Your task to perform on an android device: create a new album in the google photos Image 0: 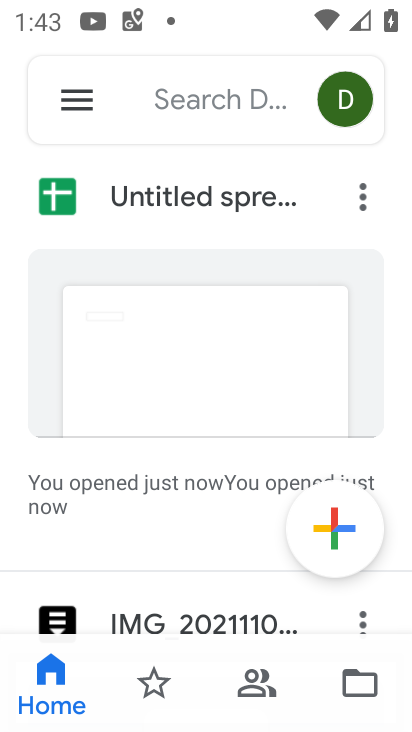
Step 0: press home button
Your task to perform on an android device: create a new album in the google photos Image 1: 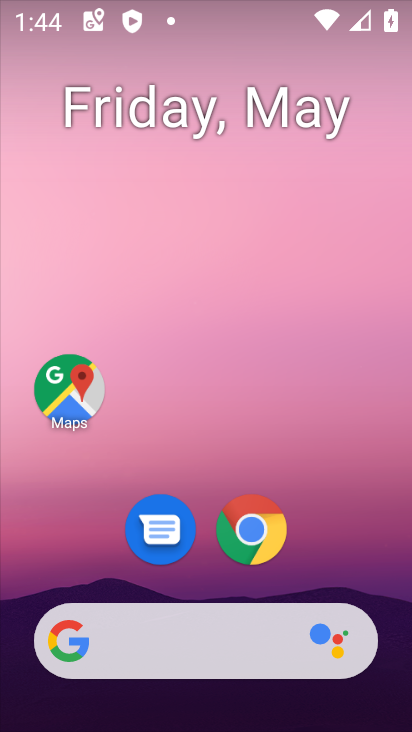
Step 1: drag from (375, 522) to (302, 124)
Your task to perform on an android device: create a new album in the google photos Image 2: 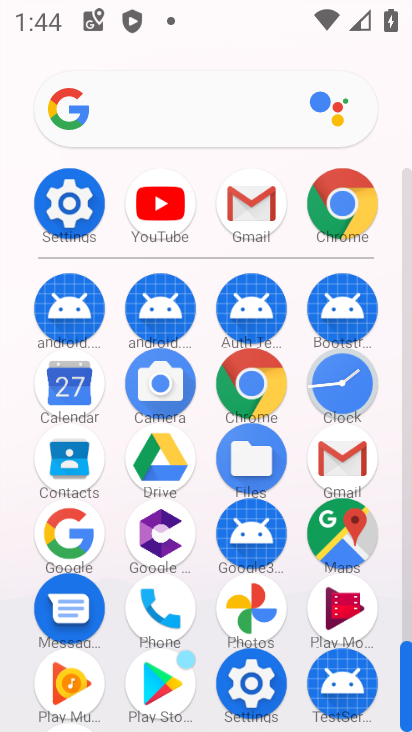
Step 2: click (256, 606)
Your task to perform on an android device: create a new album in the google photos Image 3: 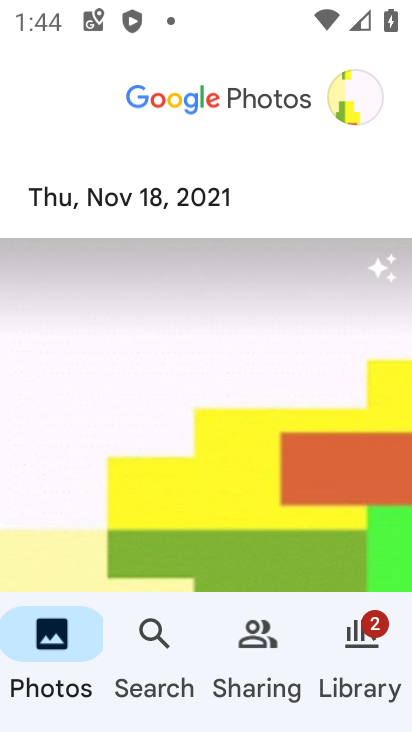
Step 3: click (382, 699)
Your task to perform on an android device: create a new album in the google photos Image 4: 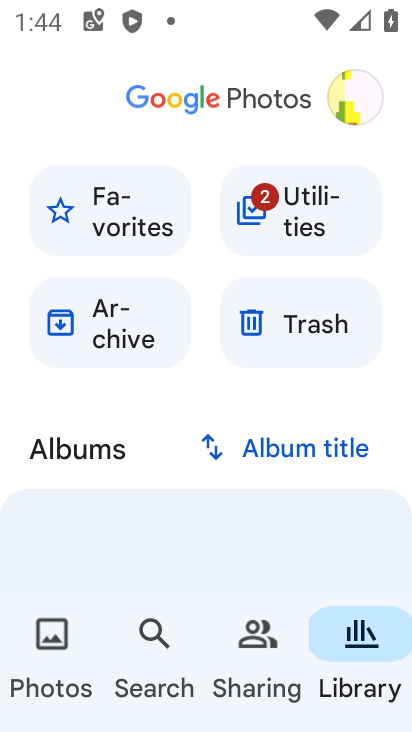
Step 4: click (115, 450)
Your task to perform on an android device: create a new album in the google photos Image 5: 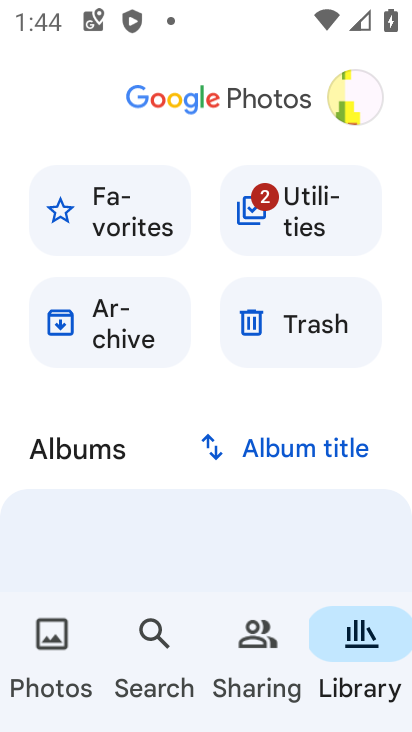
Step 5: drag from (170, 572) to (165, 204)
Your task to perform on an android device: create a new album in the google photos Image 6: 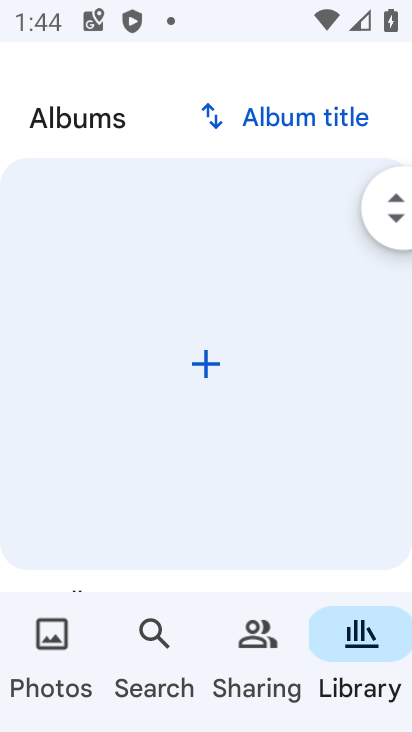
Step 6: click (185, 348)
Your task to perform on an android device: create a new album in the google photos Image 7: 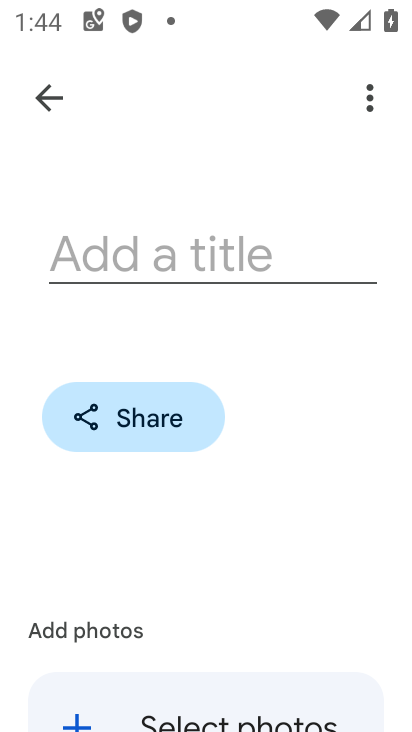
Step 7: click (159, 271)
Your task to perform on an android device: create a new album in the google photos Image 8: 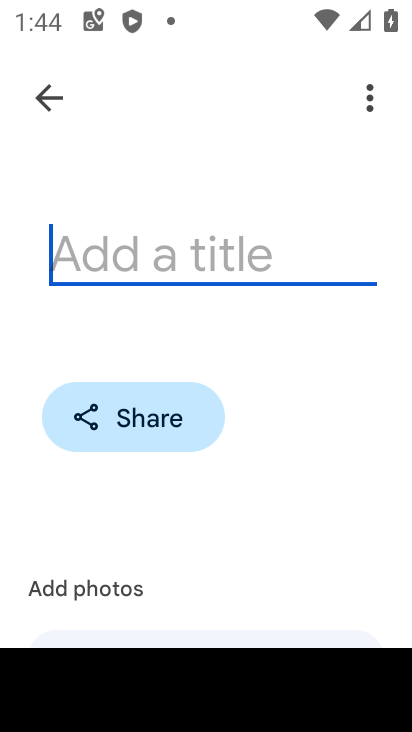
Step 8: type "csdvdvdf"
Your task to perform on an android device: create a new album in the google photos Image 9: 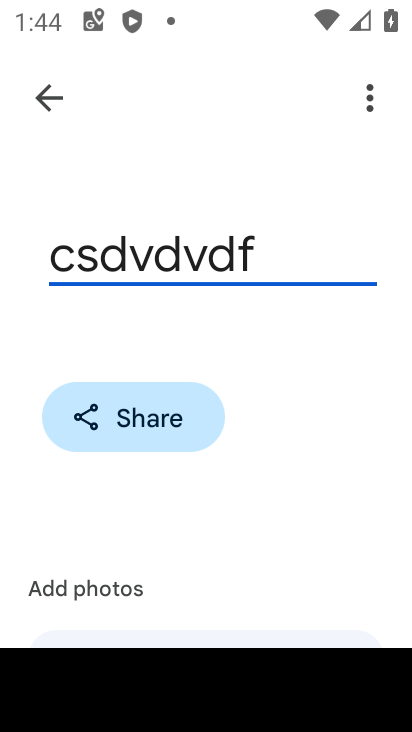
Step 9: drag from (112, 553) to (79, 293)
Your task to perform on an android device: create a new album in the google photos Image 10: 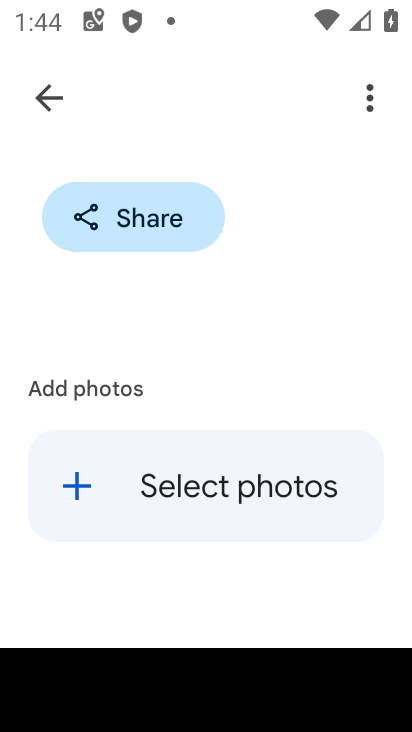
Step 10: click (138, 450)
Your task to perform on an android device: create a new album in the google photos Image 11: 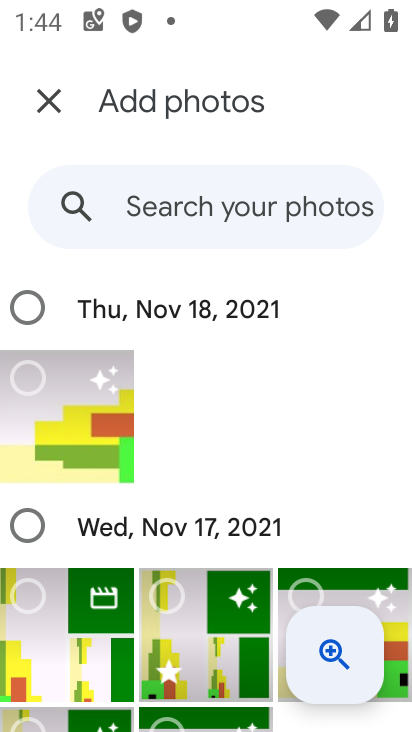
Step 11: click (84, 293)
Your task to perform on an android device: create a new album in the google photos Image 12: 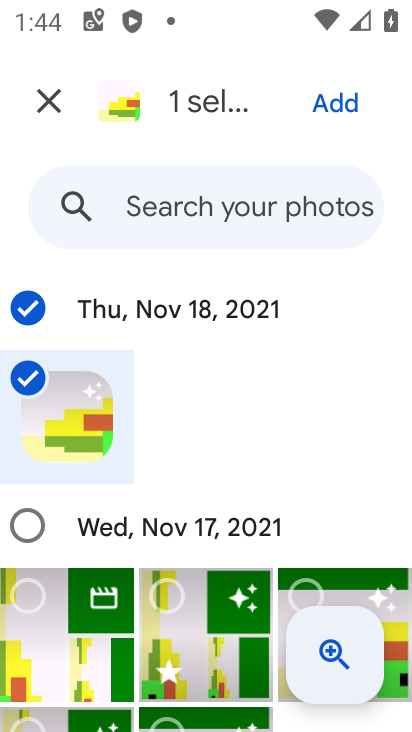
Step 12: click (40, 537)
Your task to perform on an android device: create a new album in the google photos Image 13: 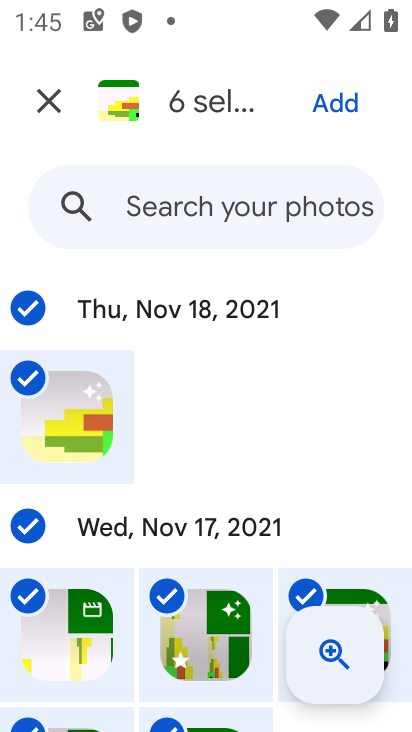
Step 13: click (344, 107)
Your task to perform on an android device: create a new album in the google photos Image 14: 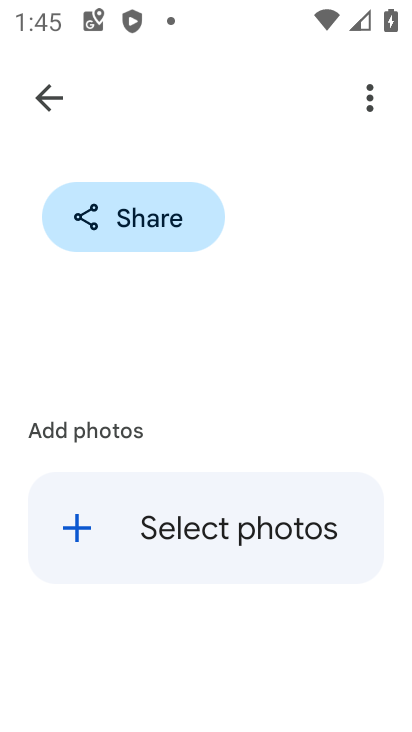
Step 14: task complete